Your task to perform on an android device: Open wifi settings Image 0: 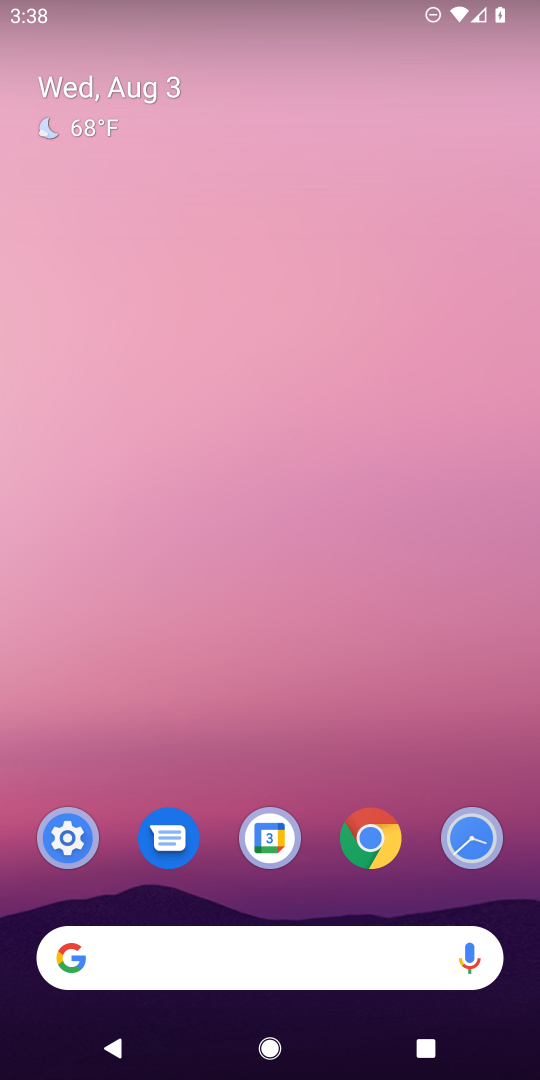
Step 0: click (61, 849)
Your task to perform on an android device: Open wifi settings Image 1: 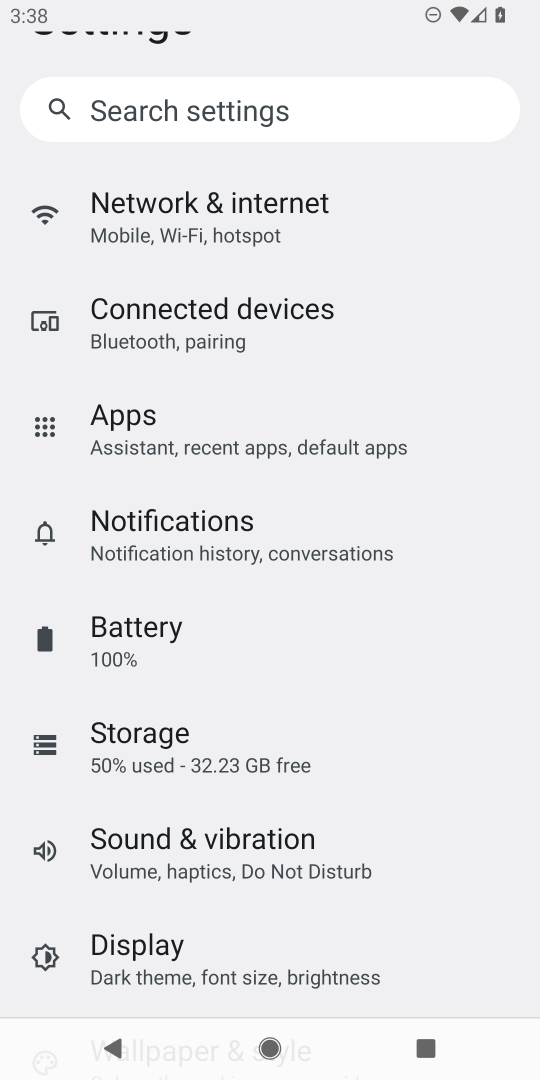
Step 1: click (243, 233)
Your task to perform on an android device: Open wifi settings Image 2: 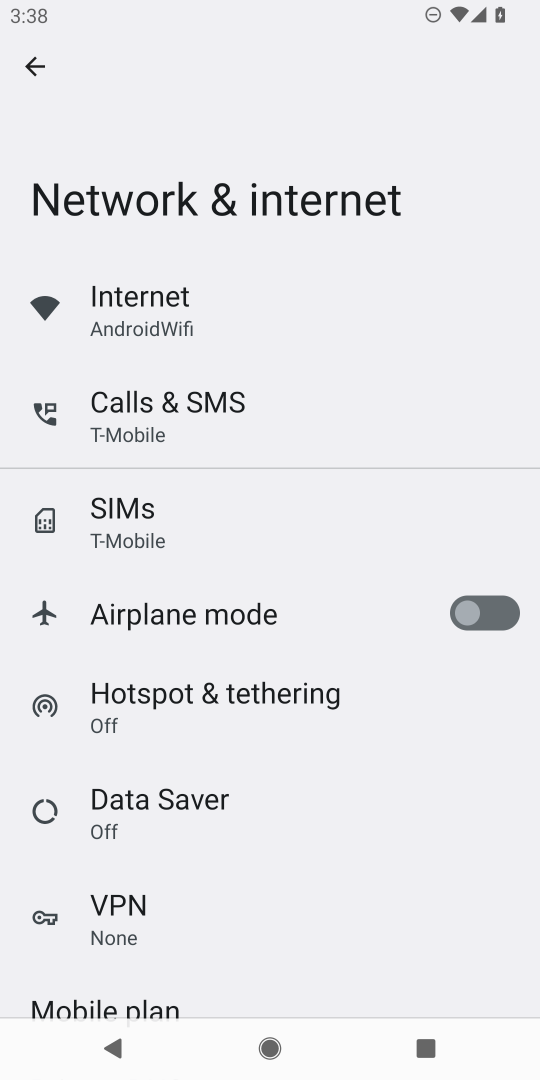
Step 2: click (149, 335)
Your task to perform on an android device: Open wifi settings Image 3: 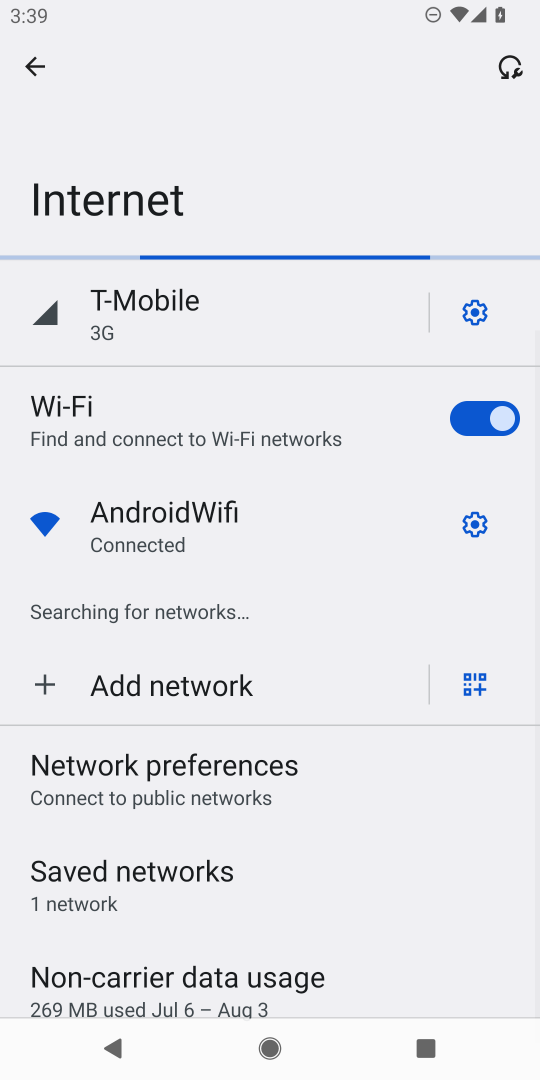
Step 3: click (133, 517)
Your task to perform on an android device: Open wifi settings Image 4: 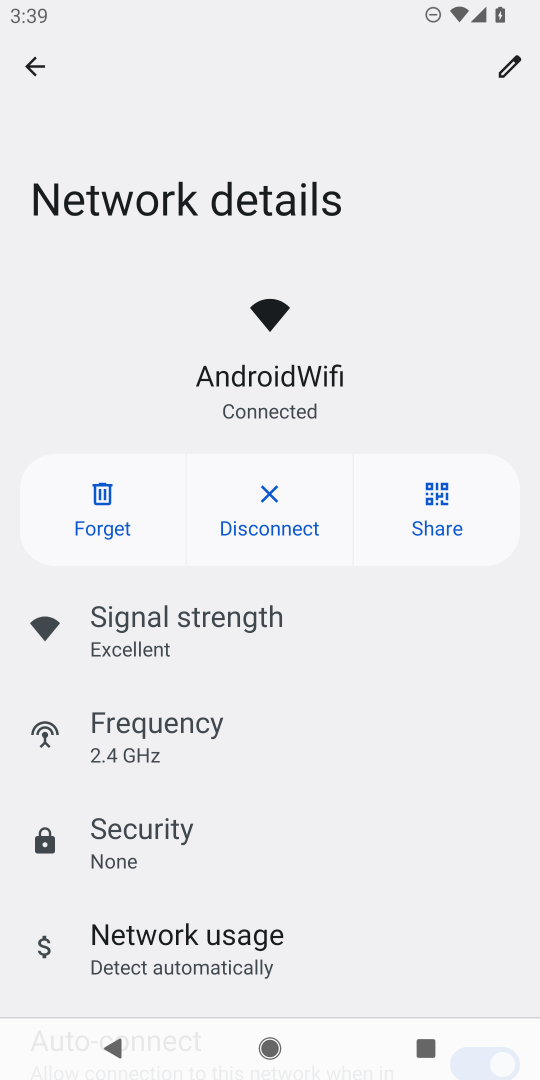
Step 4: task complete